Your task to perform on an android device: Play the last video I watched on Youtube Image 0: 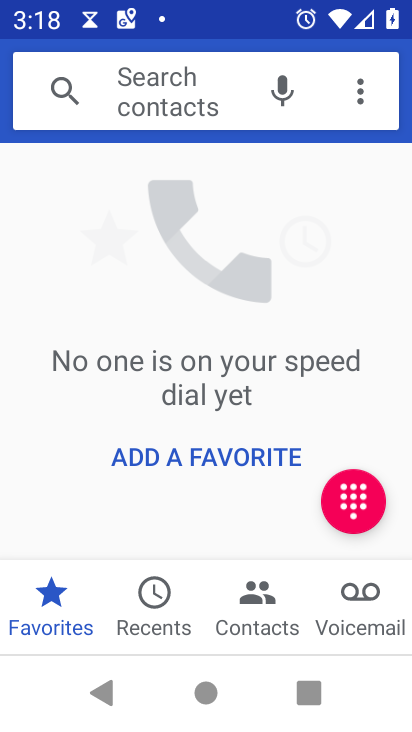
Step 0: press home button
Your task to perform on an android device: Play the last video I watched on Youtube Image 1: 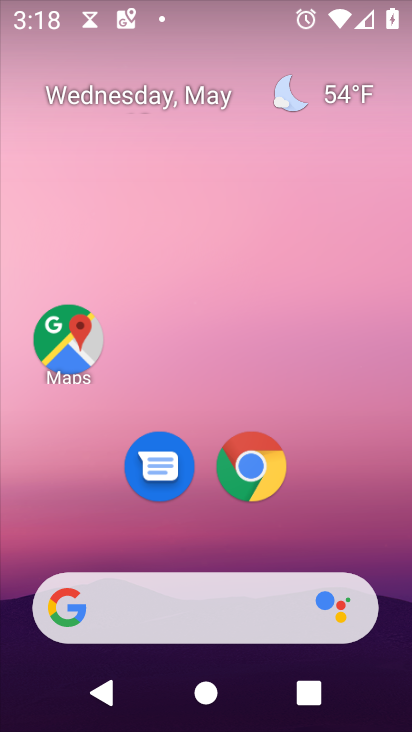
Step 1: drag from (403, 580) to (326, 277)
Your task to perform on an android device: Play the last video I watched on Youtube Image 2: 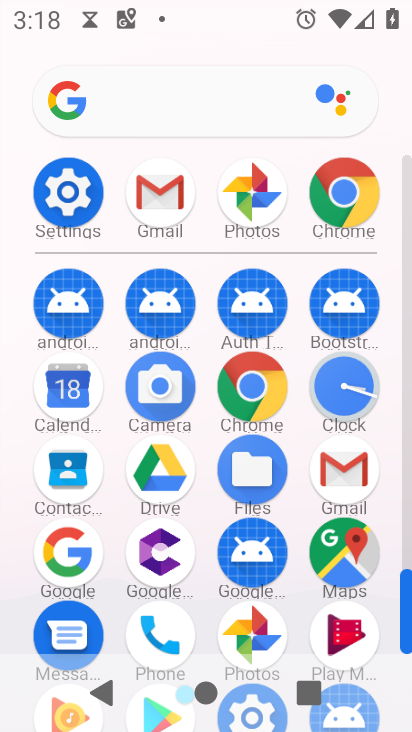
Step 2: click (406, 667)
Your task to perform on an android device: Play the last video I watched on Youtube Image 3: 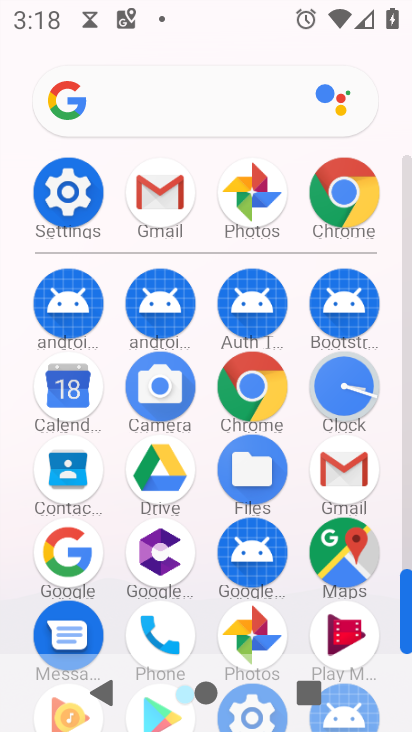
Step 3: drag from (388, 579) to (376, 437)
Your task to perform on an android device: Play the last video I watched on Youtube Image 4: 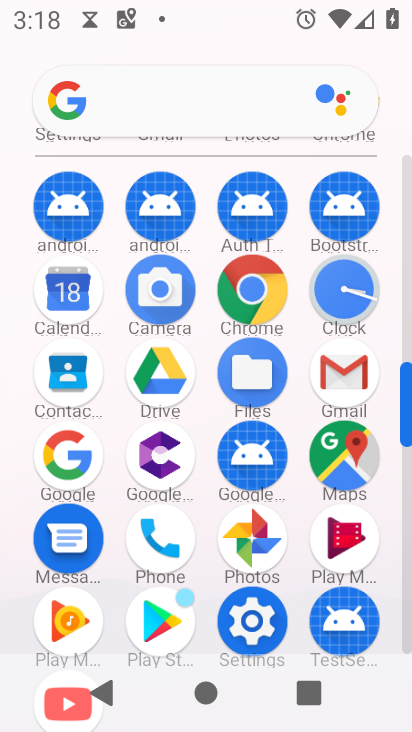
Step 4: drag from (396, 636) to (392, 464)
Your task to perform on an android device: Play the last video I watched on Youtube Image 5: 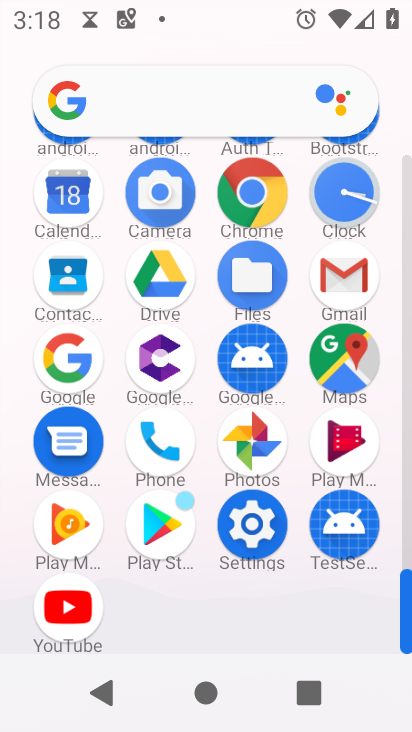
Step 5: click (86, 613)
Your task to perform on an android device: Play the last video I watched on Youtube Image 6: 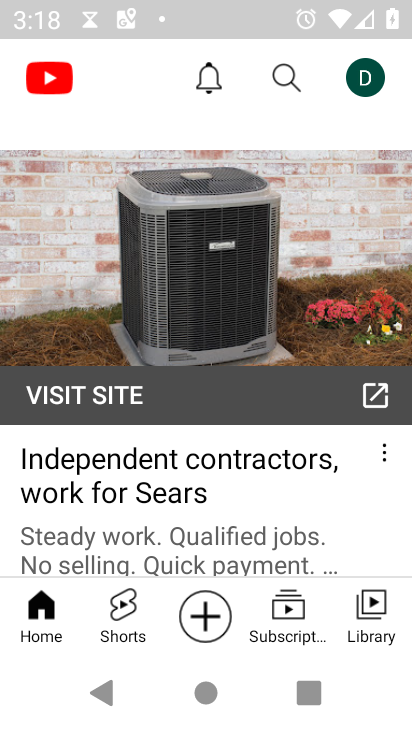
Step 6: click (359, 641)
Your task to perform on an android device: Play the last video I watched on Youtube Image 7: 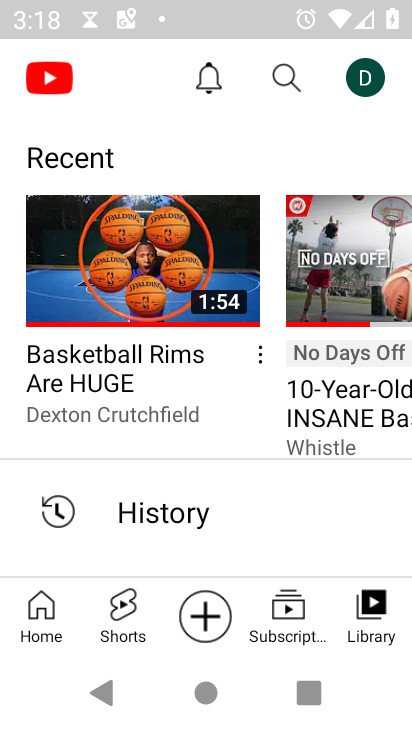
Step 7: click (215, 284)
Your task to perform on an android device: Play the last video I watched on Youtube Image 8: 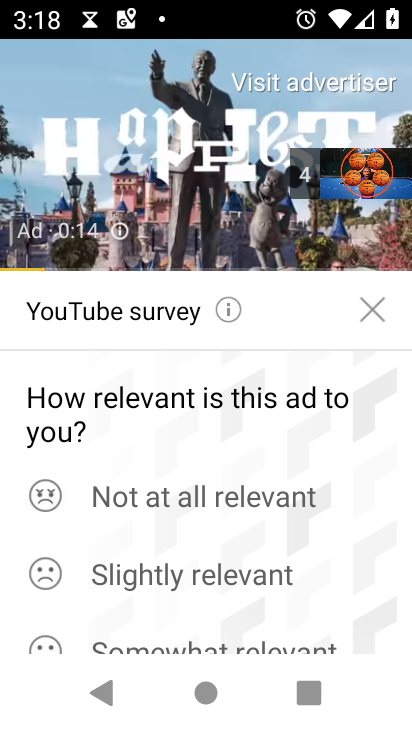
Step 8: task complete